Your task to perform on an android device: Go to Android settings Image 0: 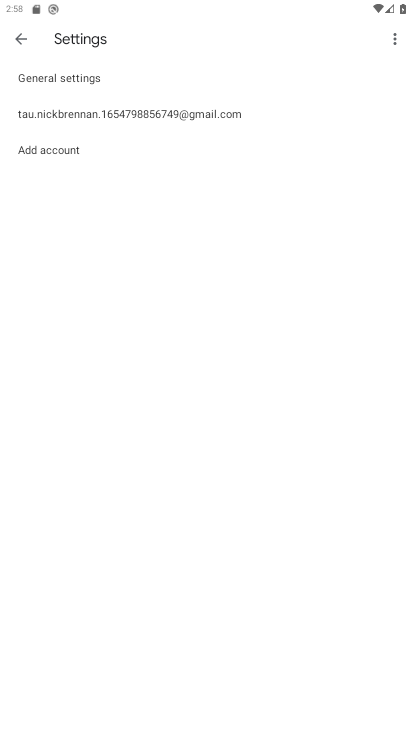
Step 0: press home button
Your task to perform on an android device: Go to Android settings Image 1: 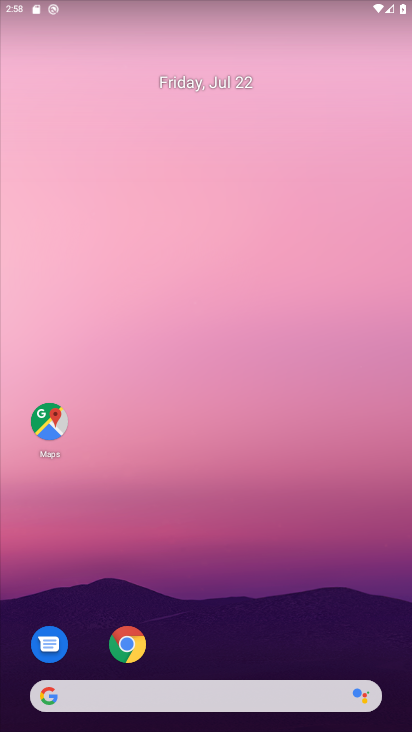
Step 1: drag from (215, 617) to (225, 237)
Your task to perform on an android device: Go to Android settings Image 2: 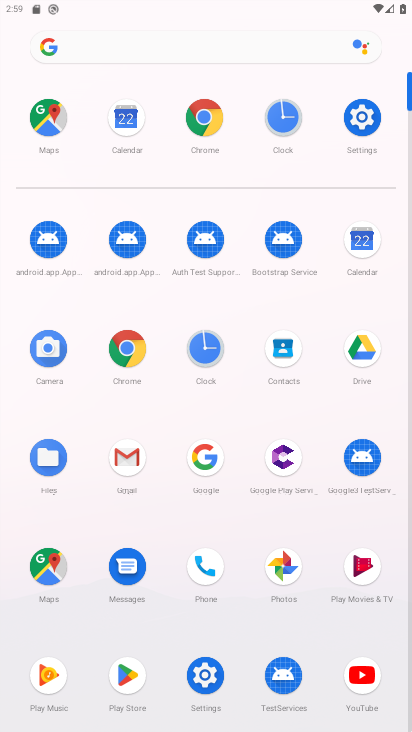
Step 2: click (378, 117)
Your task to perform on an android device: Go to Android settings Image 3: 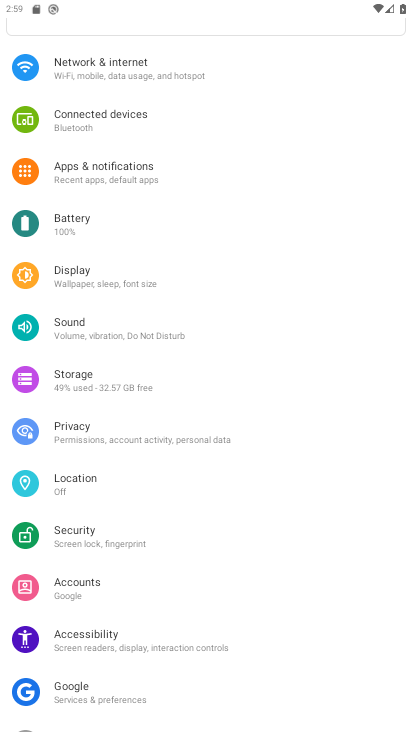
Step 3: task complete